Your task to perform on an android device: Show me popular videos on Youtube Image 0: 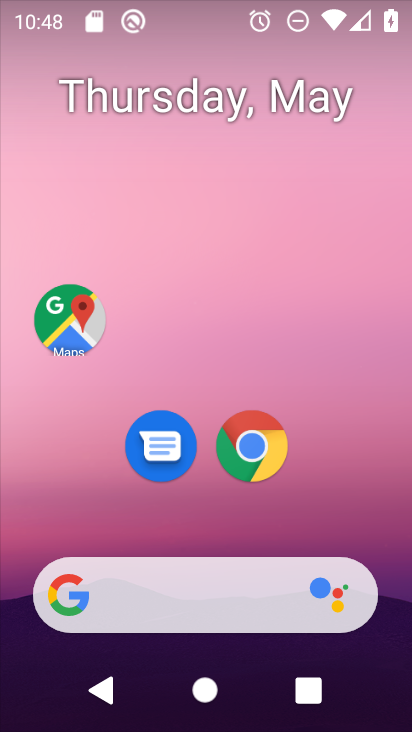
Step 0: drag from (258, 635) to (262, 324)
Your task to perform on an android device: Show me popular videos on Youtube Image 1: 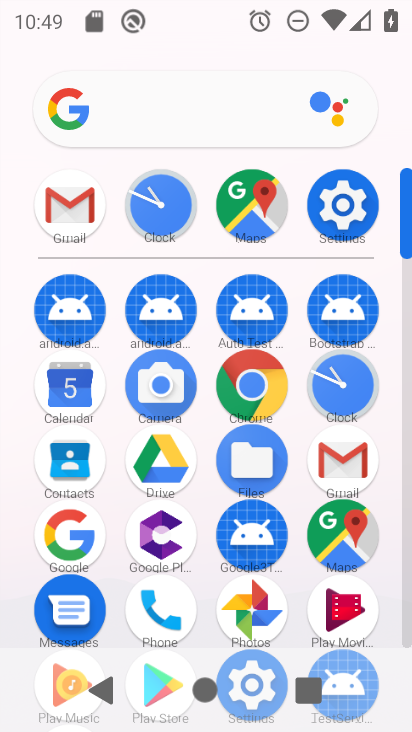
Step 1: drag from (296, 556) to (342, 309)
Your task to perform on an android device: Show me popular videos on Youtube Image 2: 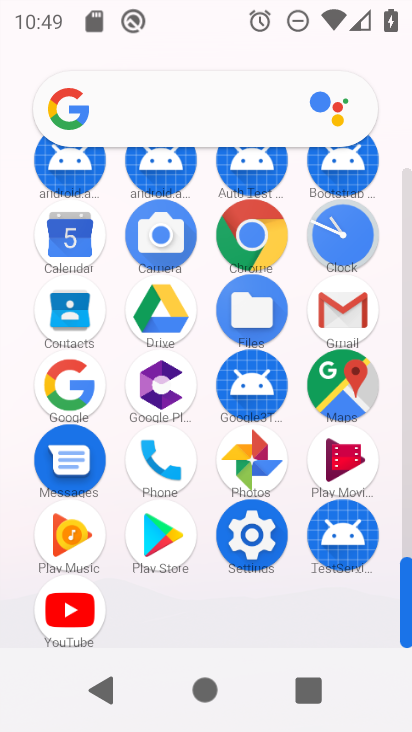
Step 2: click (85, 596)
Your task to perform on an android device: Show me popular videos on Youtube Image 3: 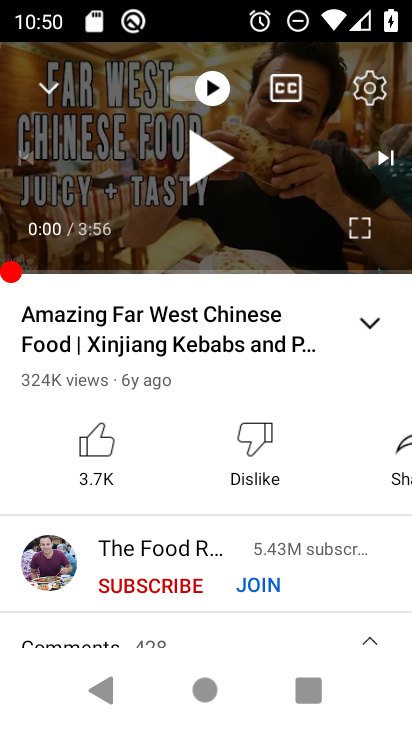
Step 3: click (58, 88)
Your task to perform on an android device: Show me popular videos on Youtube Image 4: 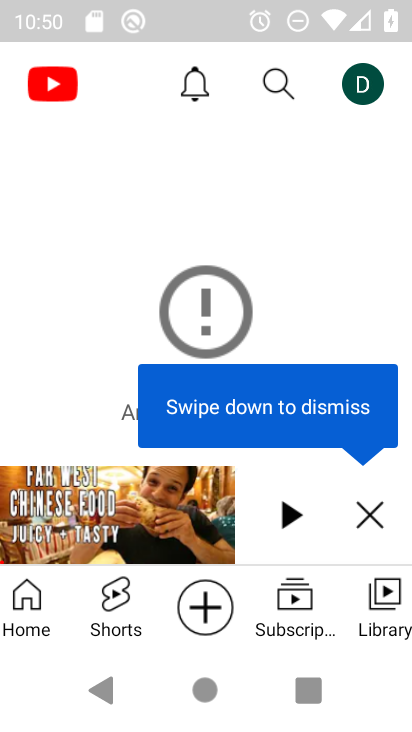
Step 4: click (277, 78)
Your task to perform on an android device: Show me popular videos on Youtube Image 5: 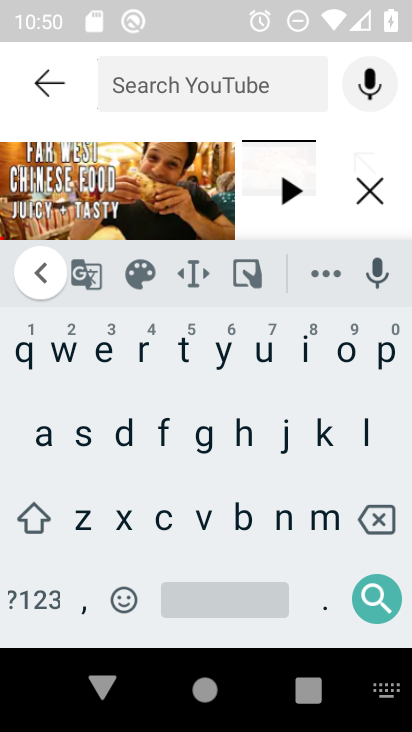
Step 5: click (385, 357)
Your task to perform on an android device: Show me popular videos on Youtube Image 6: 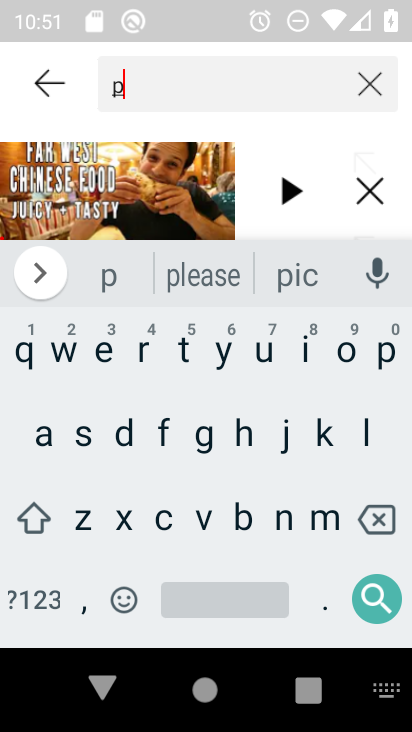
Step 6: click (345, 352)
Your task to perform on an android device: Show me popular videos on Youtube Image 7: 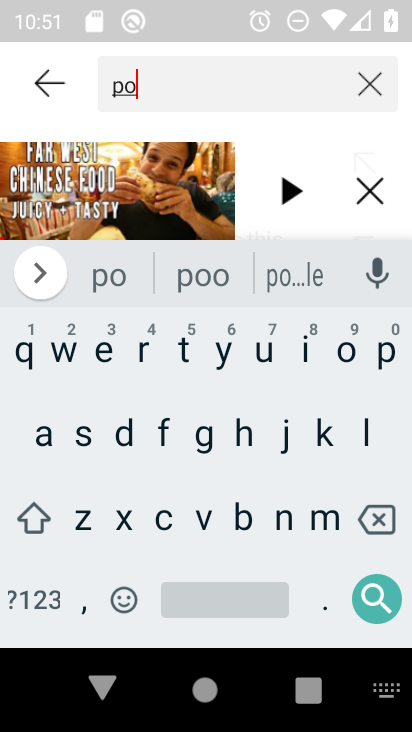
Step 7: click (384, 356)
Your task to perform on an android device: Show me popular videos on Youtube Image 8: 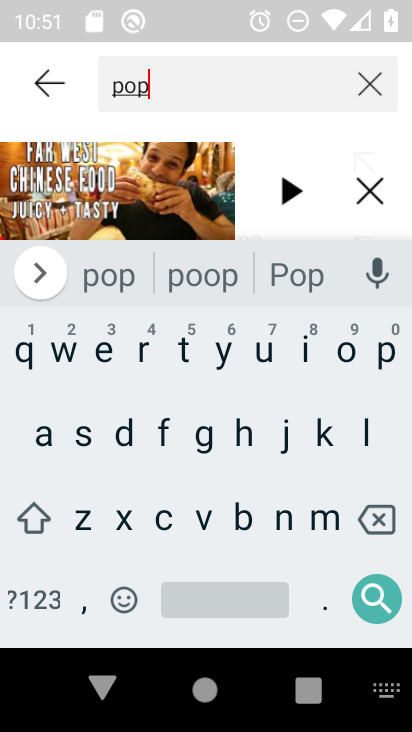
Step 8: click (266, 359)
Your task to perform on an android device: Show me popular videos on Youtube Image 9: 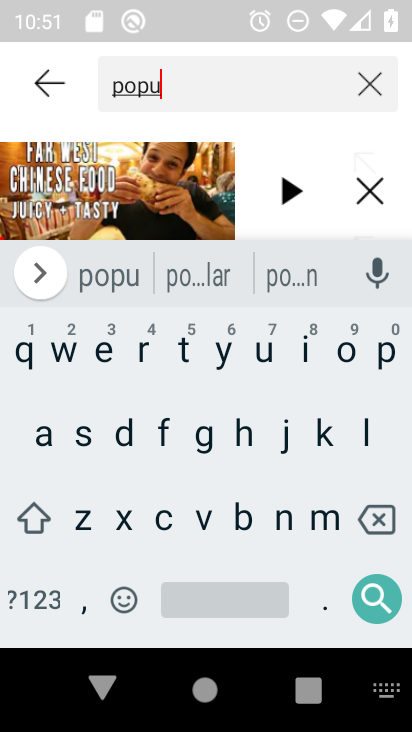
Step 9: click (186, 286)
Your task to perform on an android device: Show me popular videos on Youtube Image 10: 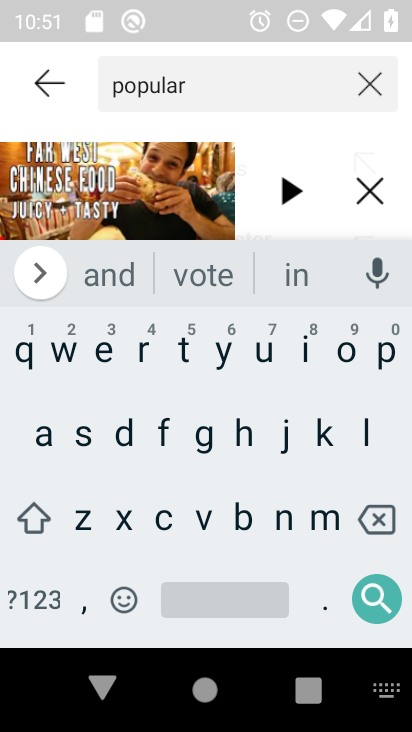
Step 10: click (202, 519)
Your task to perform on an android device: Show me popular videos on Youtube Image 11: 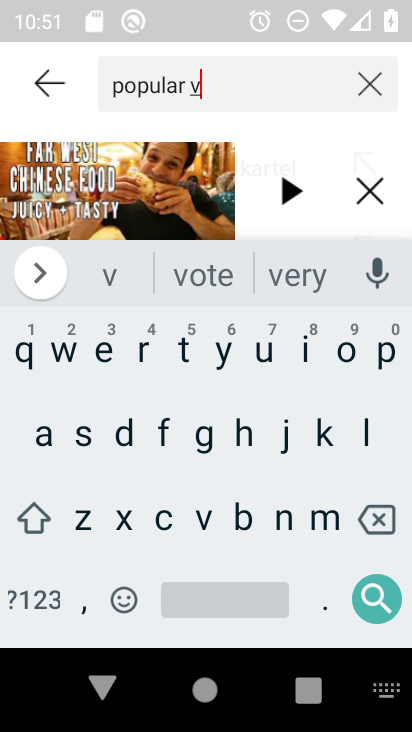
Step 11: click (372, 191)
Your task to perform on an android device: Show me popular videos on Youtube Image 12: 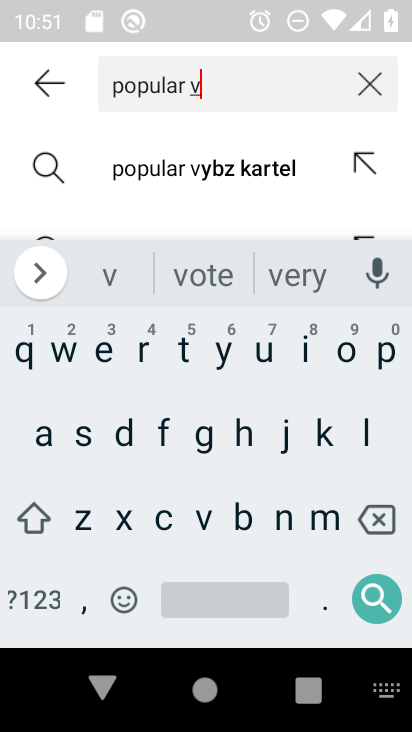
Step 12: click (308, 352)
Your task to perform on an android device: Show me popular videos on Youtube Image 13: 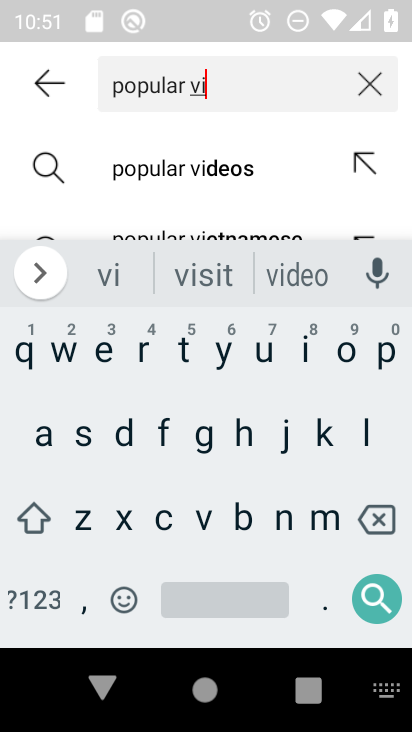
Step 13: click (187, 167)
Your task to perform on an android device: Show me popular videos on Youtube Image 14: 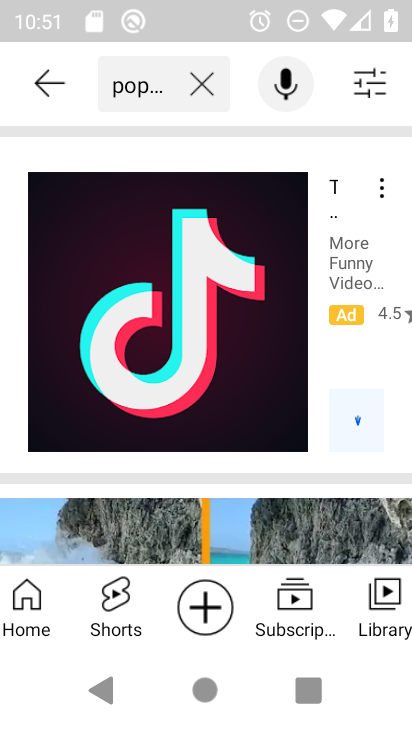
Step 14: task complete